Your task to perform on an android device: Open the calendar app, open the side menu, and click the "Day" option Image 0: 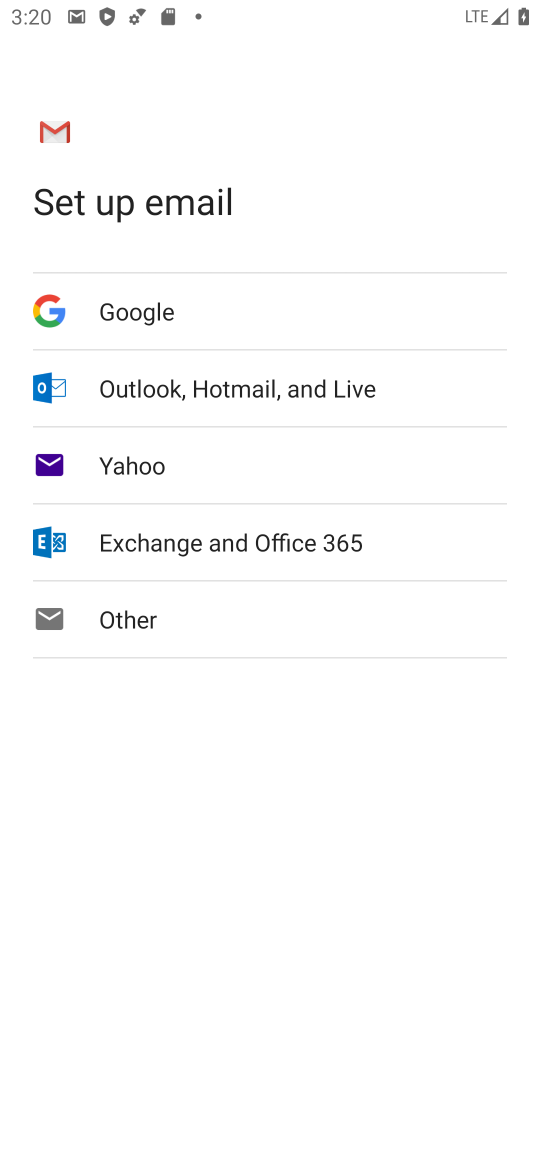
Step 0: press home button
Your task to perform on an android device: Open the calendar app, open the side menu, and click the "Day" option Image 1: 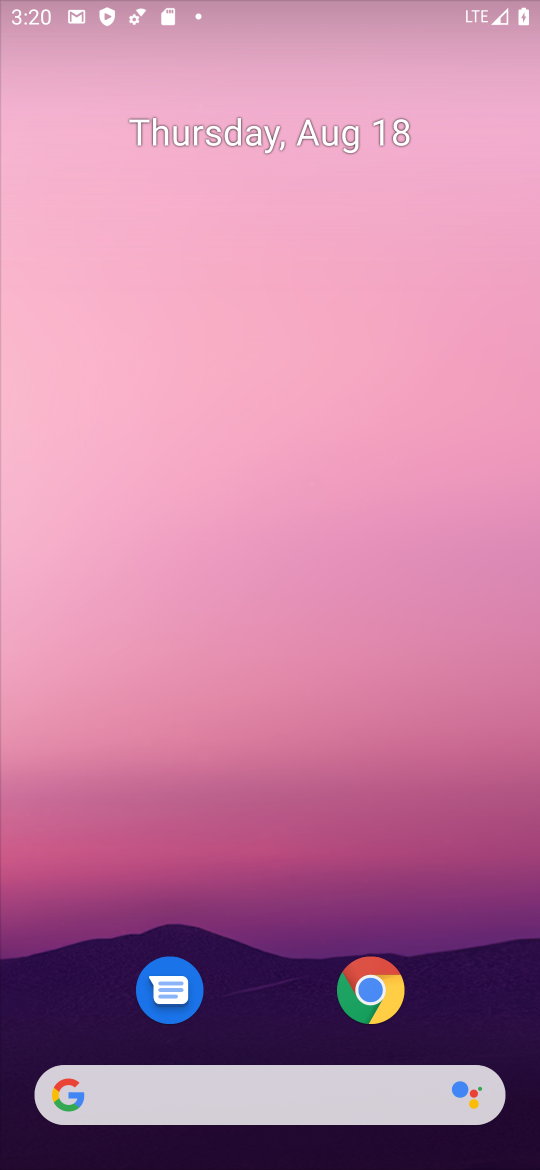
Step 1: drag from (247, 891) to (394, 131)
Your task to perform on an android device: Open the calendar app, open the side menu, and click the "Day" option Image 2: 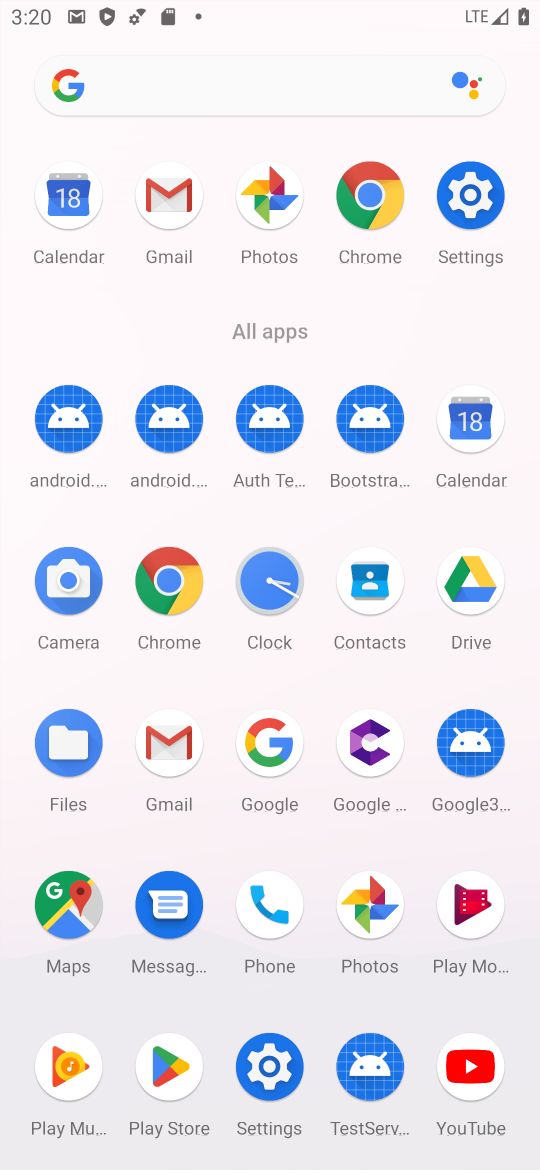
Step 2: click (485, 418)
Your task to perform on an android device: Open the calendar app, open the side menu, and click the "Day" option Image 3: 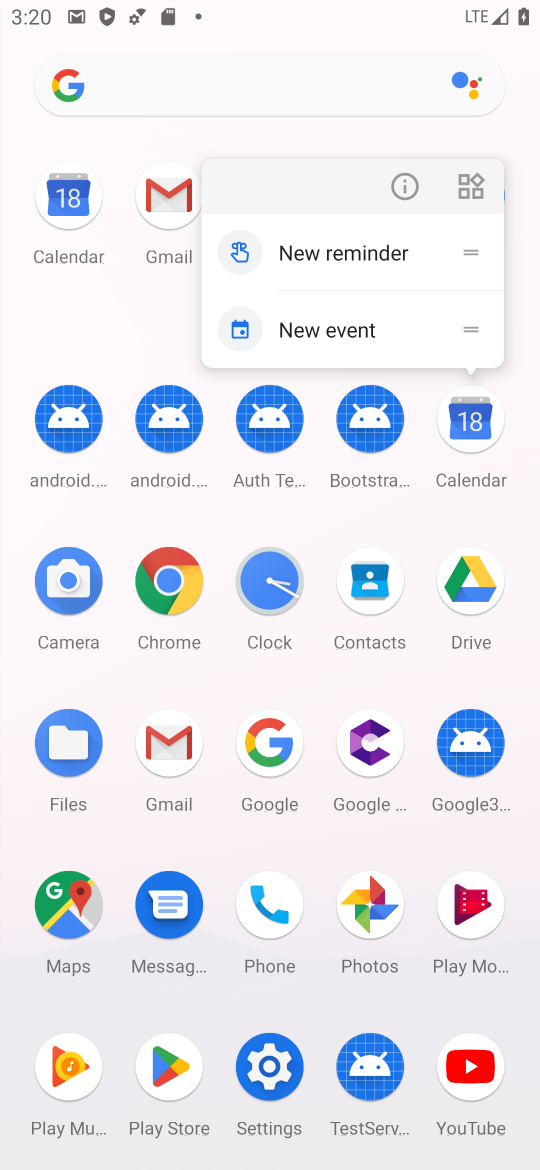
Step 3: click (485, 418)
Your task to perform on an android device: Open the calendar app, open the side menu, and click the "Day" option Image 4: 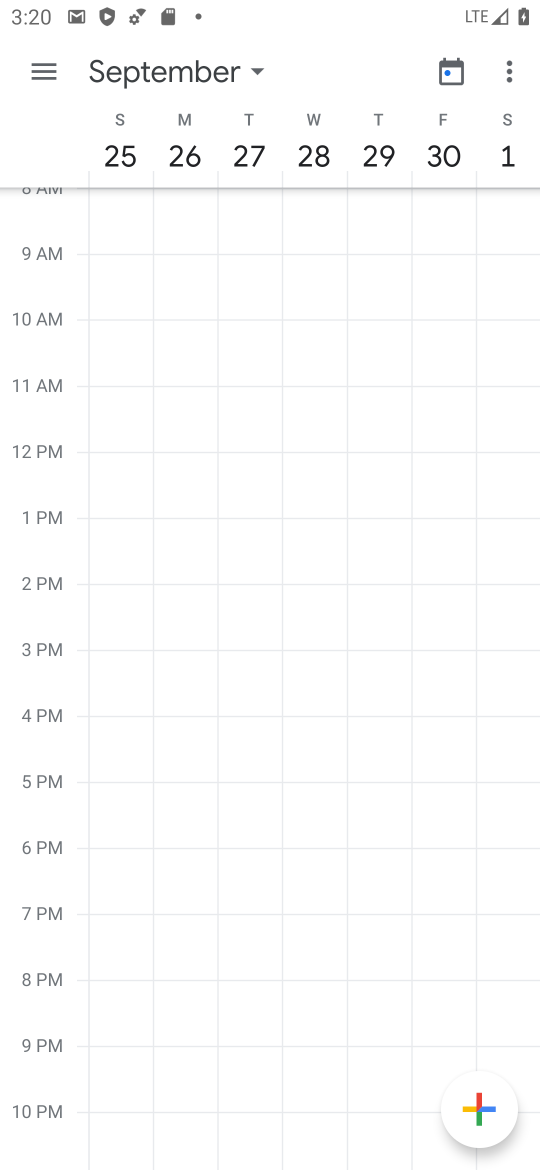
Step 4: click (47, 71)
Your task to perform on an android device: Open the calendar app, open the side menu, and click the "Day" option Image 5: 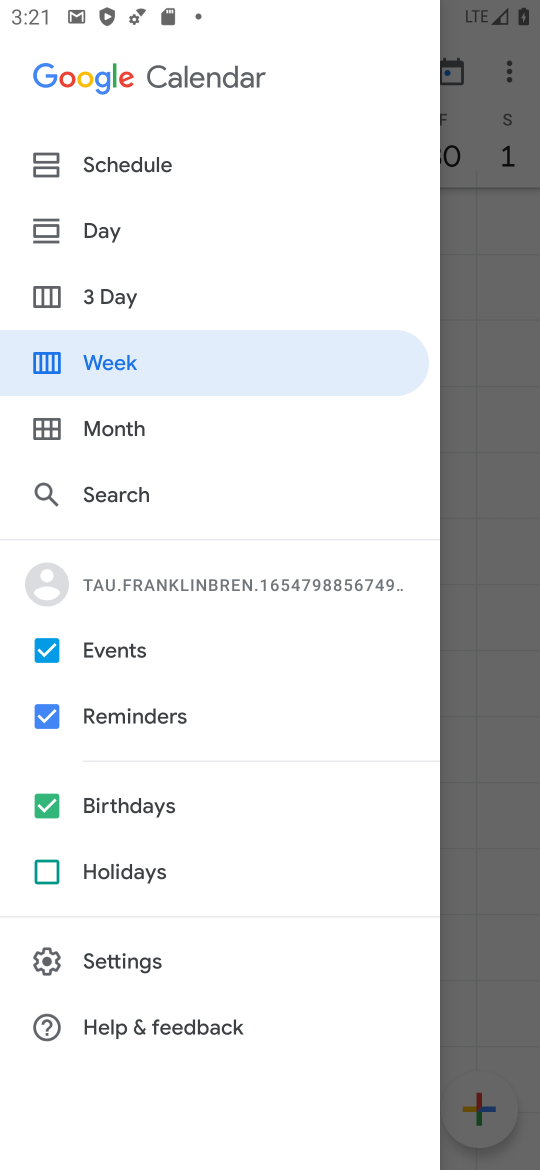
Step 5: click (122, 221)
Your task to perform on an android device: Open the calendar app, open the side menu, and click the "Day" option Image 6: 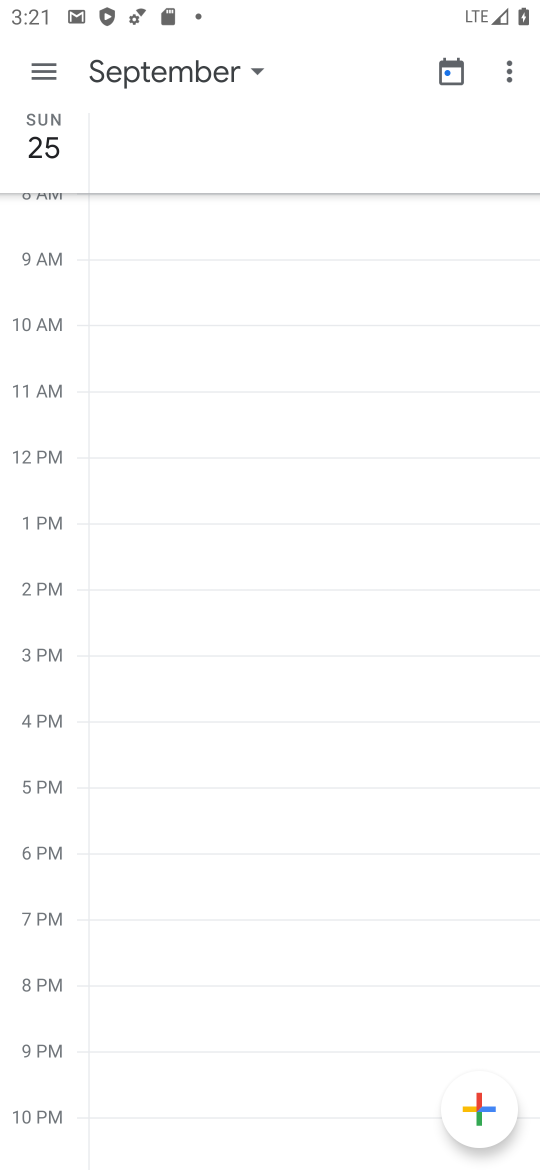
Step 6: task complete